Your task to perform on an android device: Go to Android settings Image 0: 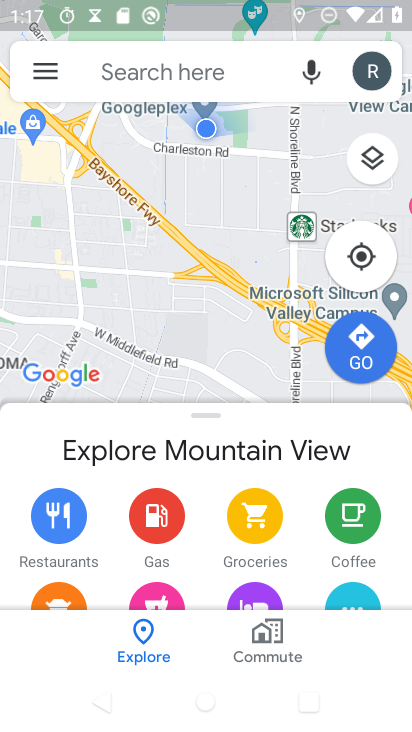
Step 0: press home button
Your task to perform on an android device: Go to Android settings Image 1: 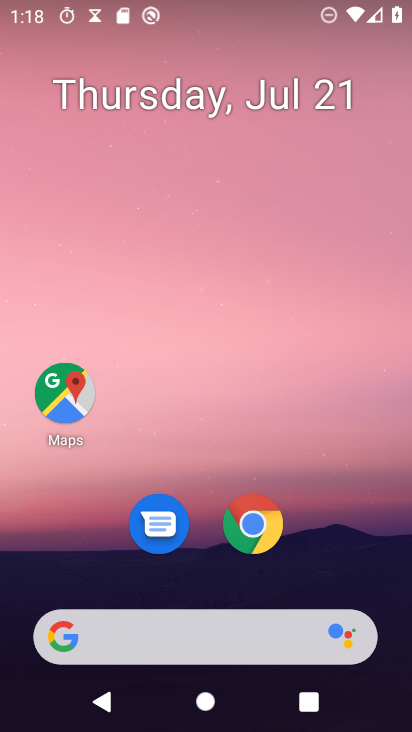
Step 1: drag from (195, 626) to (280, 136)
Your task to perform on an android device: Go to Android settings Image 2: 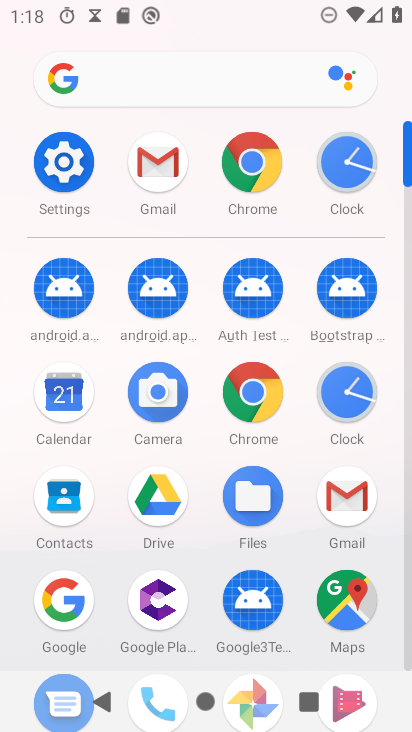
Step 2: click (62, 164)
Your task to perform on an android device: Go to Android settings Image 3: 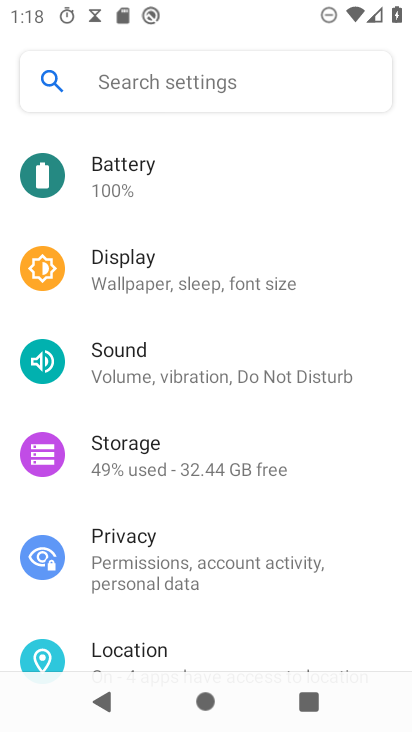
Step 3: task complete